Your task to perform on an android device: Open Maps and search for coffee Image 0: 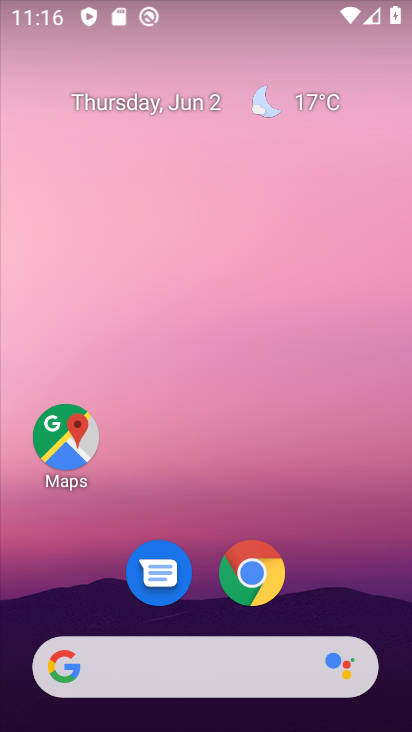
Step 0: task complete